Your task to perform on an android device: open app "Firefox Browser" Image 0: 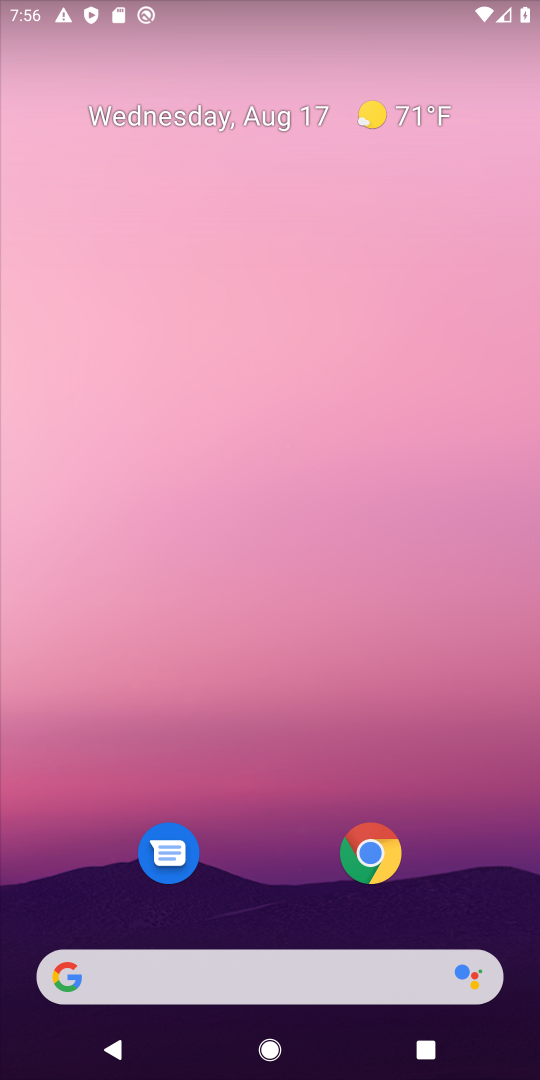
Step 0: drag from (256, 844) to (316, 149)
Your task to perform on an android device: open app "Firefox Browser" Image 1: 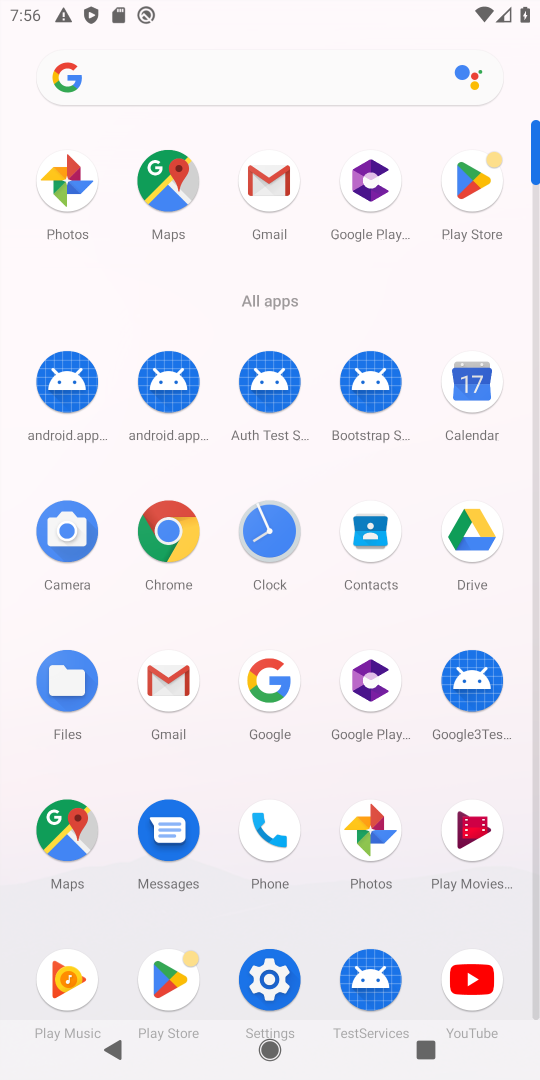
Step 1: click (468, 197)
Your task to perform on an android device: open app "Firefox Browser" Image 2: 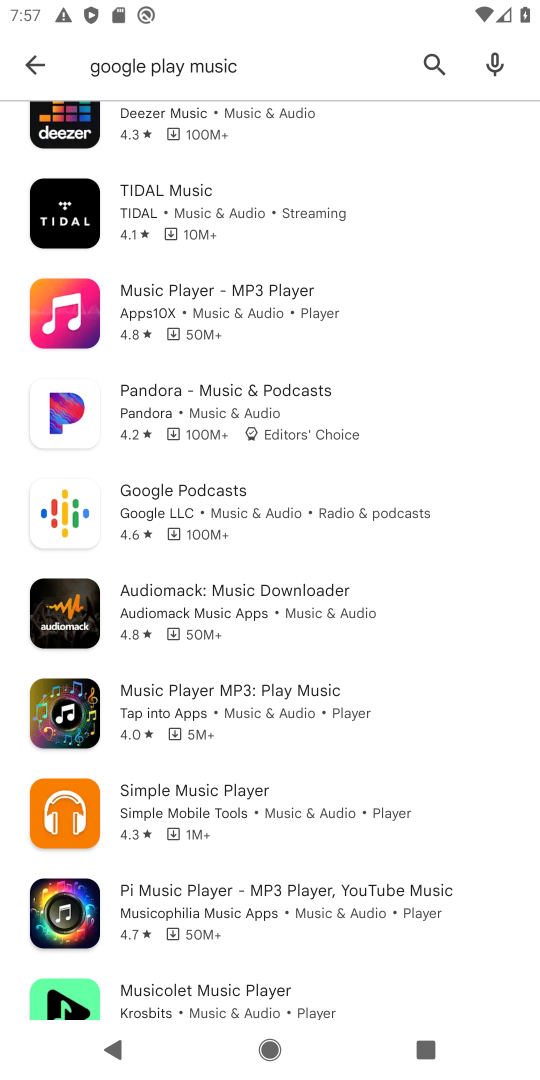
Step 2: click (423, 64)
Your task to perform on an android device: open app "Firefox Browser" Image 3: 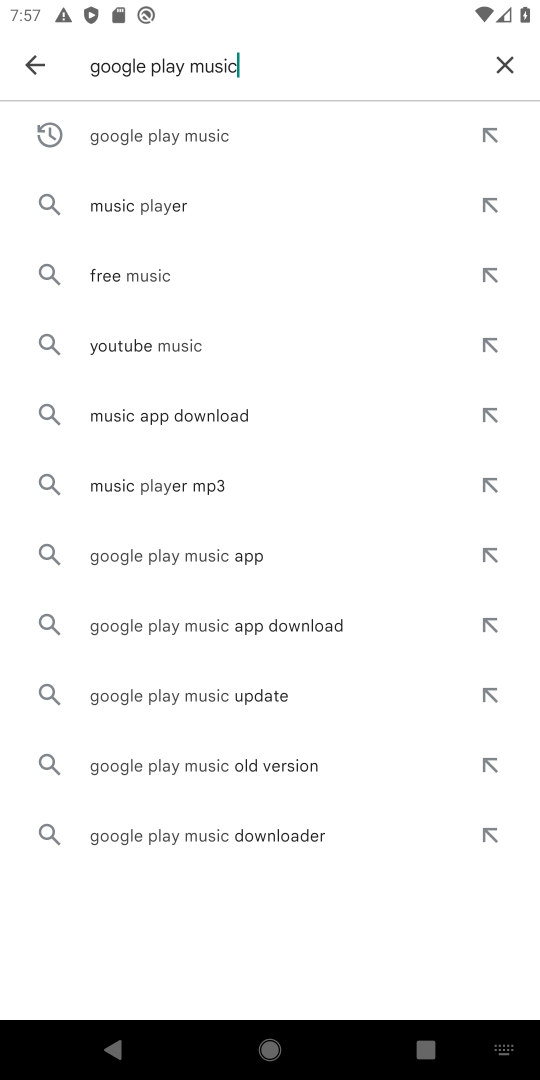
Step 3: click (497, 64)
Your task to perform on an android device: open app "Firefox Browser" Image 4: 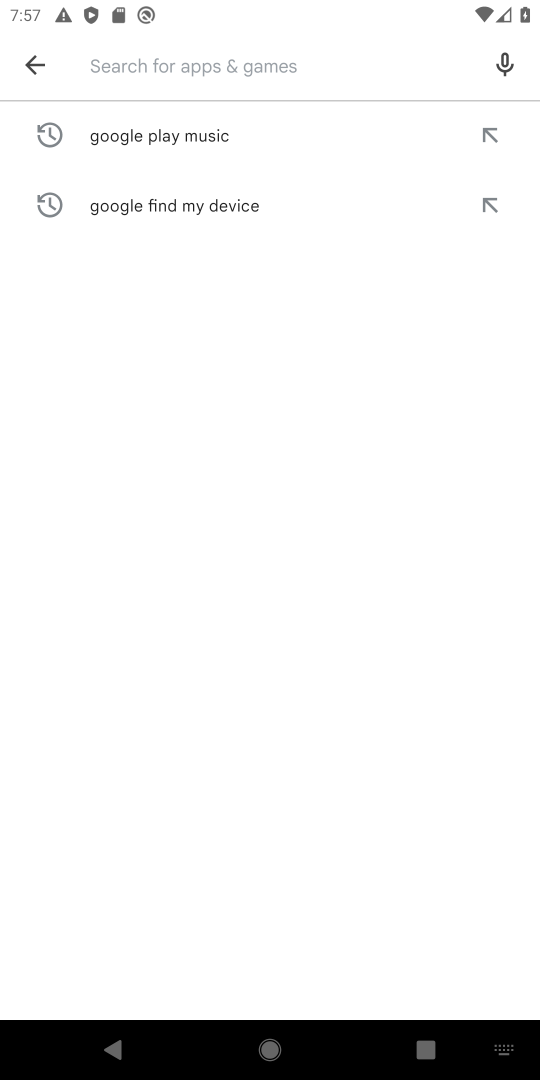
Step 4: type "Firefox Browser"
Your task to perform on an android device: open app "Firefox Browser" Image 5: 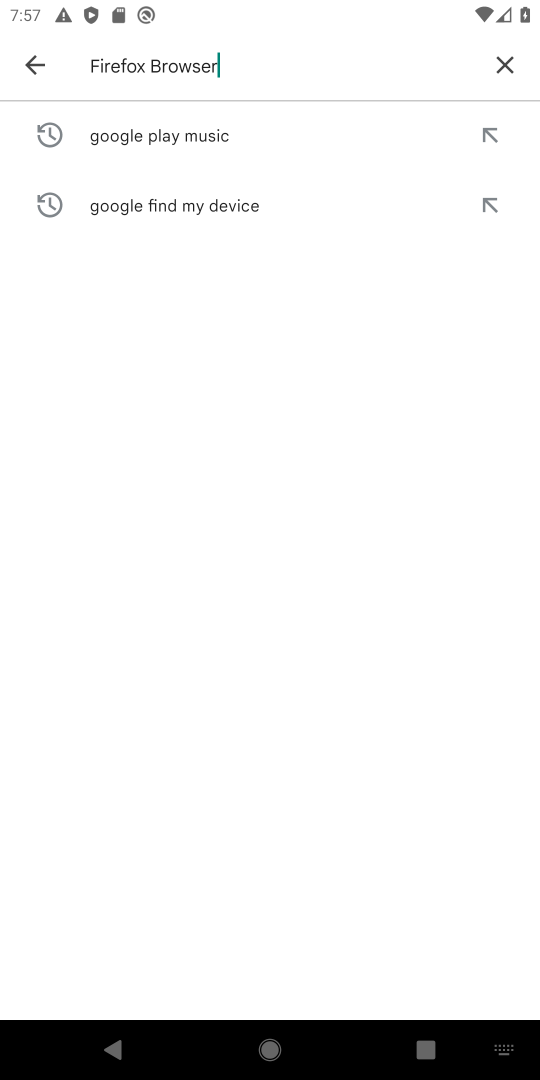
Step 5: type ""
Your task to perform on an android device: open app "Firefox Browser" Image 6: 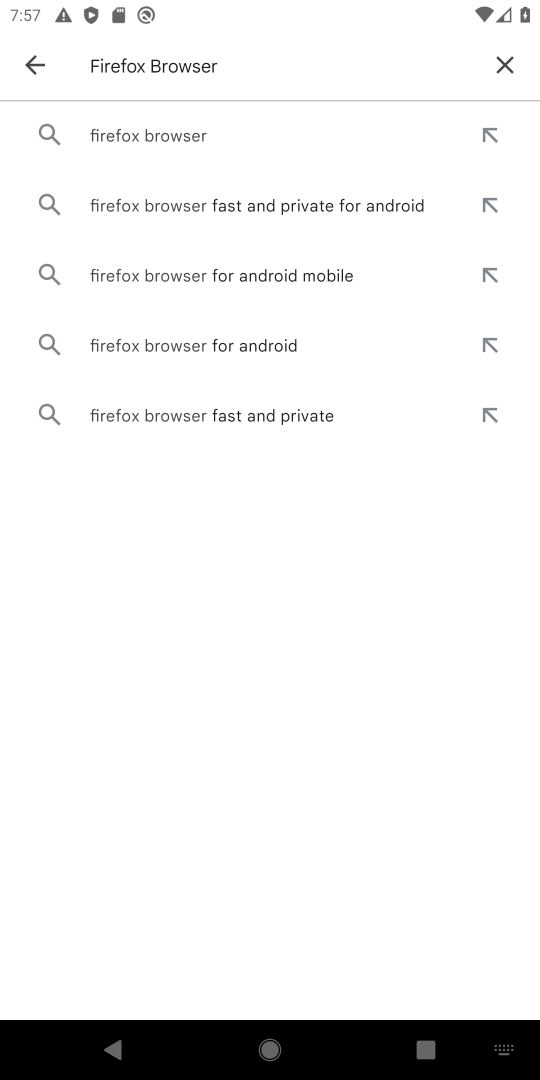
Step 6: click (153, 118)
Your task to perform on an android device: open app "Firefox Browser" Image 7: 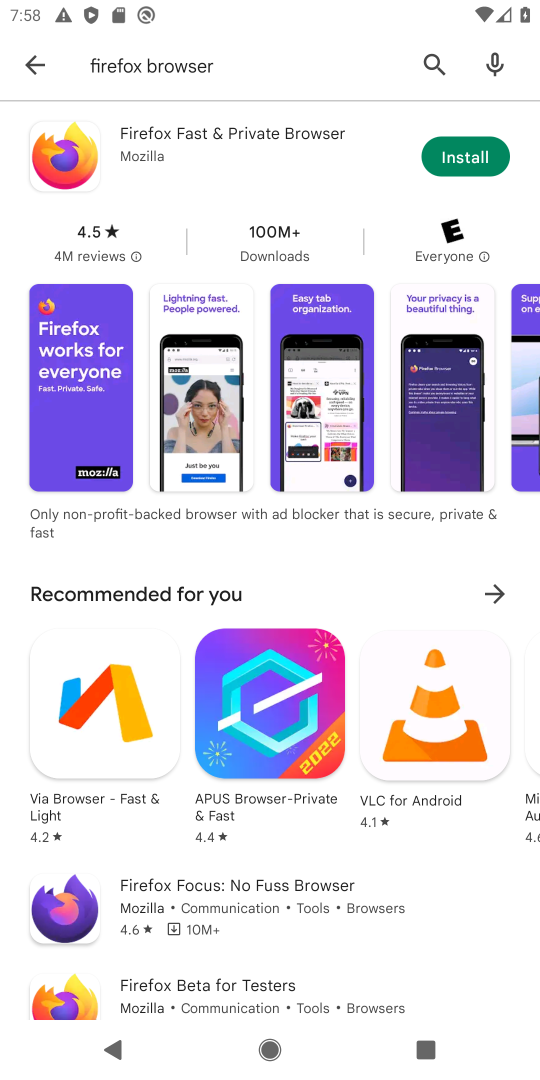
Step 7: task complete